Your task to perform on an android device: turn off smart reply in the gmail app Image 0: 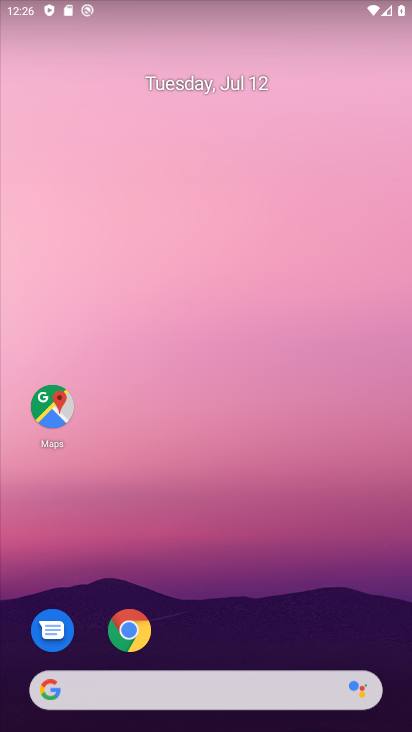
Step 0: drag from (328, 629) to (248, 188)
Your task to perform on an android device: turn off smart reply in the gmail app Image 1: 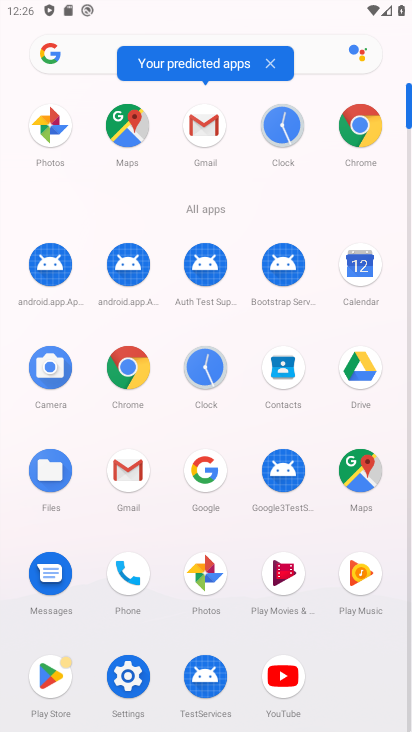
Step 1: click (128, 474)
Your task to perform on an android device: turn off smart reply in the gmail app Image 2: 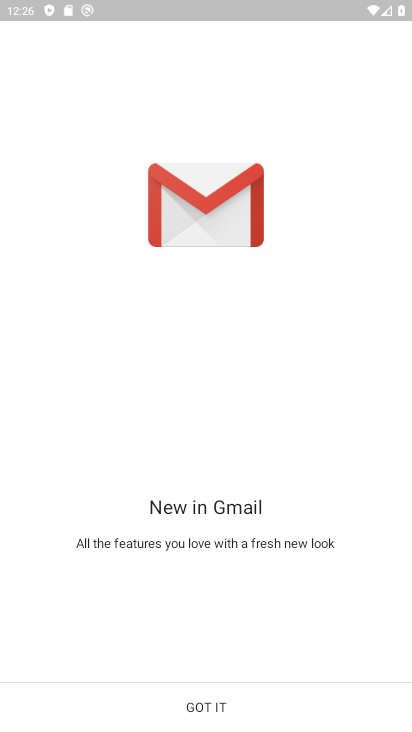
Step 2: click (206, 711)
Your task to perform on an android device: turn off smart reply in the gmail app Image 3: 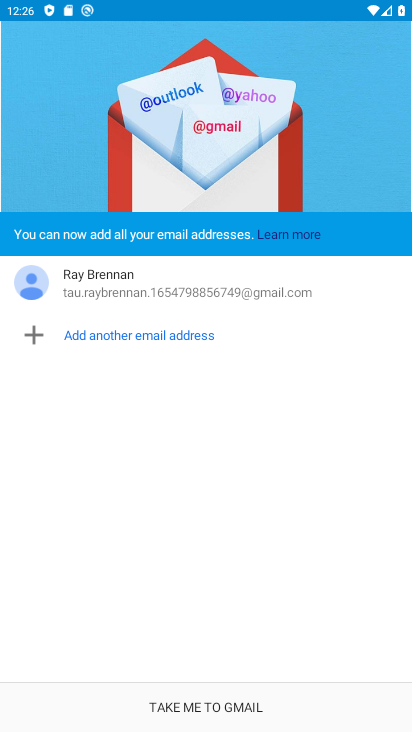
Step 3: click (206, 703)
Your task to perform on an android device: turn off smart reply in the gmail app Image 4: 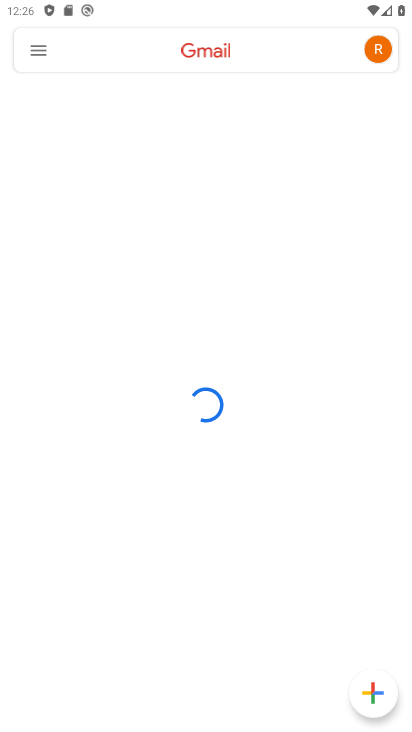
Step 4: click (38, 48)
Your task to perform on an android device: turn off smart reply in the gmail app Image 5: 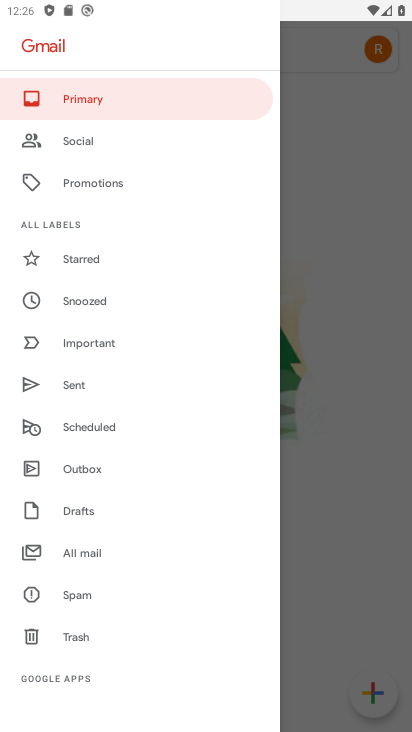
Step 5: drag from (100, 624) to (121, 225)
Your task to perform on an android device: turn off smart reply in the gmail app Image 6: 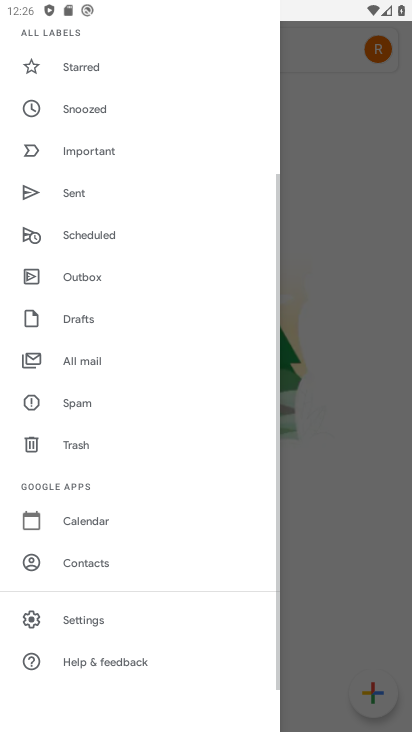
Step 6: click (82, 624)
Your task to perform on an android device: turn off smart reply in the gmail app Image 7: 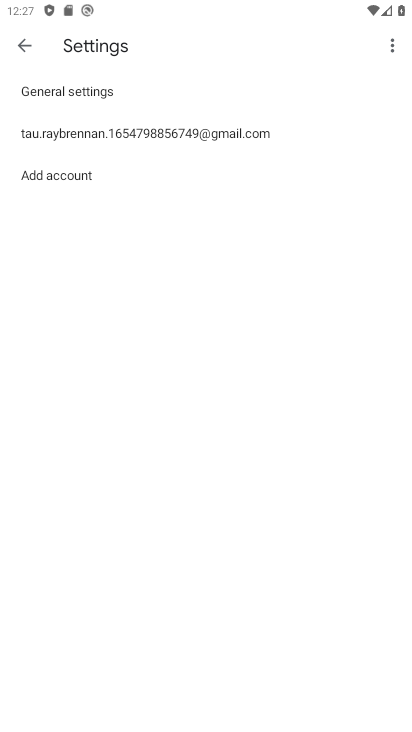
Step 7: click (116, 136)
Your task to perform on an android device: turn off smart reply in the gmail app Image 8: 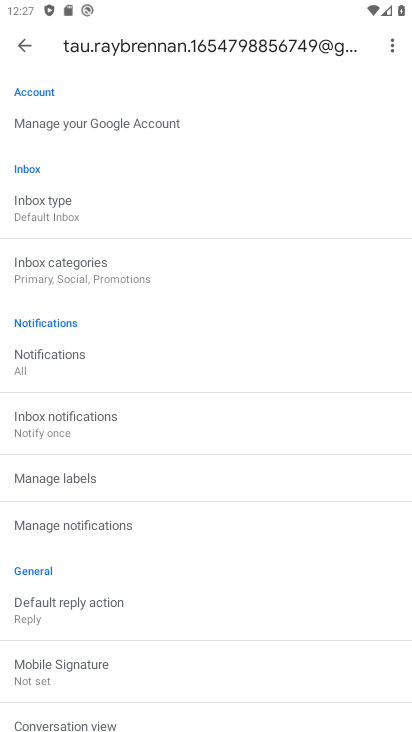
Step 8: drag from (166, 668) to (193, 321)
Your task to perform on an android device: turn off smart reply in the gmail app Image 9: 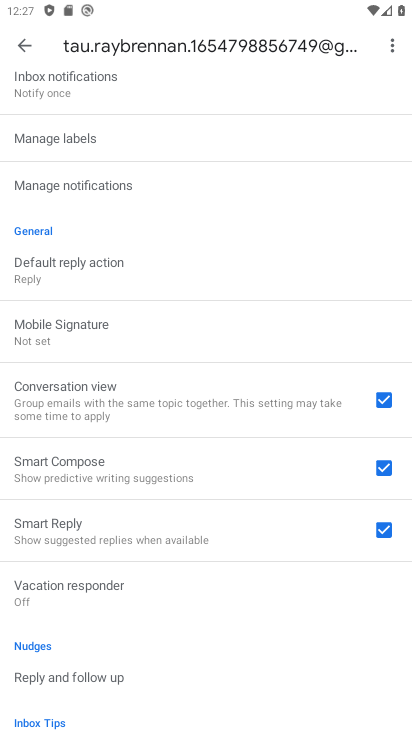
Step 9: click (383, 529)
Your task to perform on an android device: turn off smart reply in the gmail app Image 10: 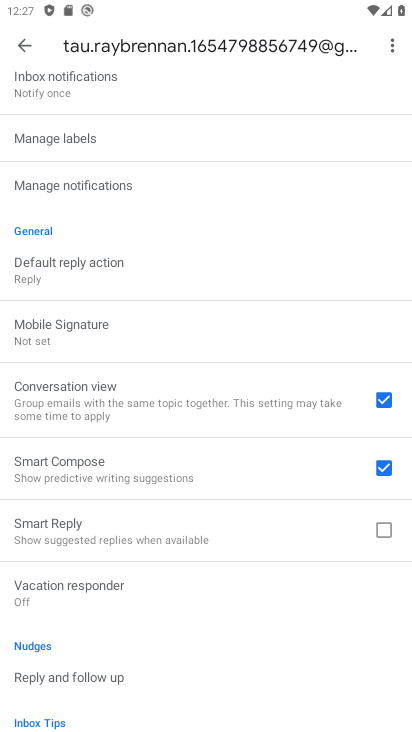
Step 10: task complete